Your task to perform on an android device: Open Yahoo.com Image 0: 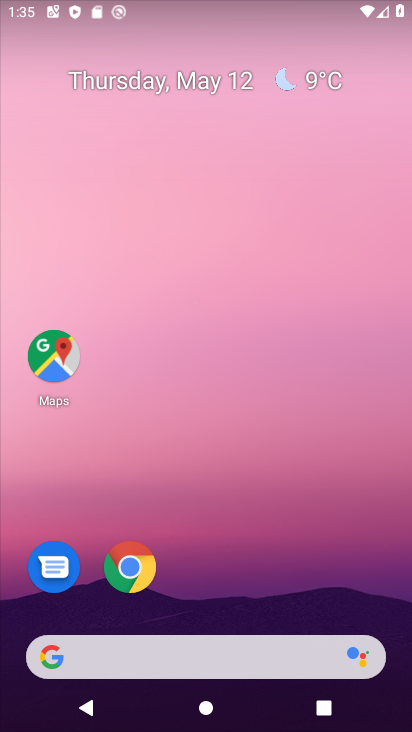
Step 0: drag from (294, 604) to (274, 199)
Your task to perform on an android device: Open Yahoo.com Image 1: 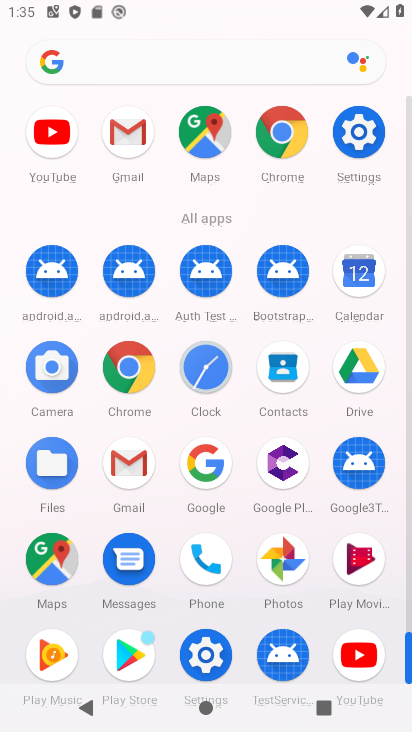
Step 1: click (279, 176)
Your task to perform on an android device: Open Yahoo.com Image 2: 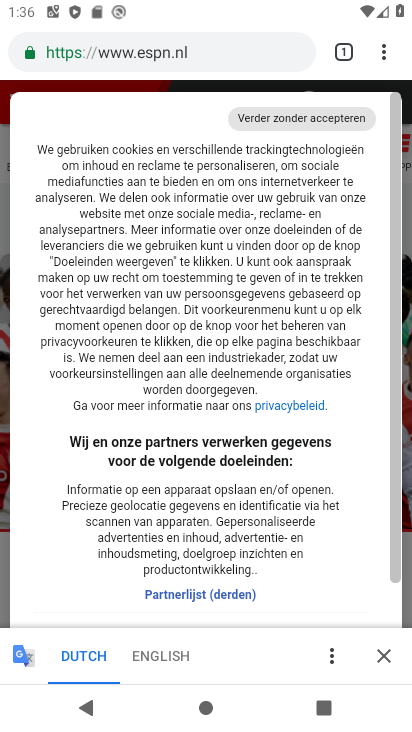
Step 2: click (184, 47)
Your task to perform on an android device: Open Yahoo.com Image 3: 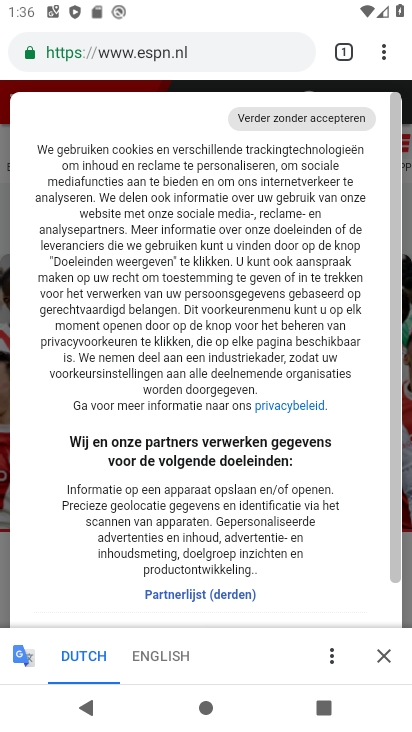
Step 3: click (184, 47)
Your task to perform on an android device: Open Yahoo.com Image 4: 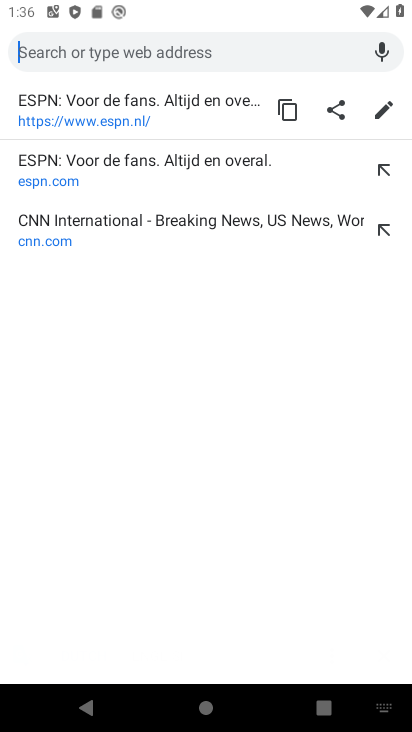
Step 4: type "www.yahoo.com"
Your task to perform on an android device: Open Yahoo.com Image 5: 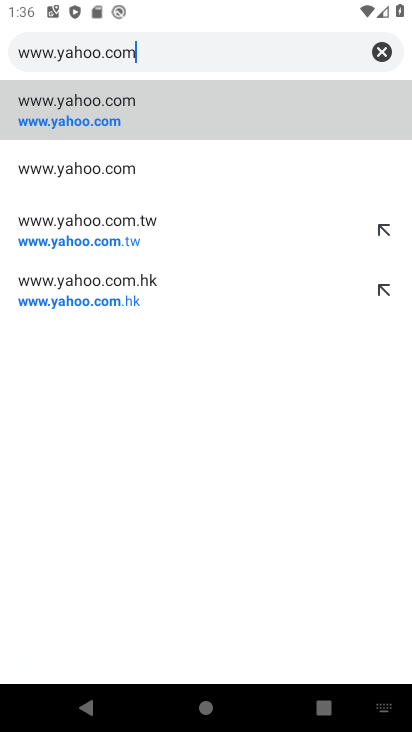
Step 5: click (51, 126)
Your task to perform on an android device: Open Yahoo.com Image 6: 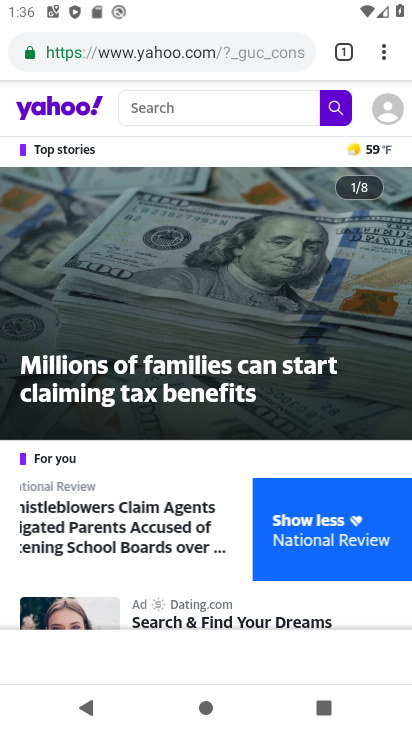
Step 6: task complete